Your task to perform on an android device: Do I have any events tomorrow? Image 0: 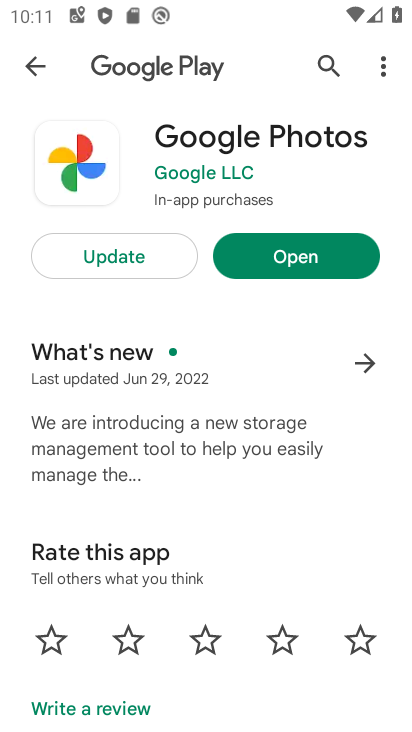
Step 0: press home button
Your task to perform on an android device: Do I have any events tomorrow? Image 1: 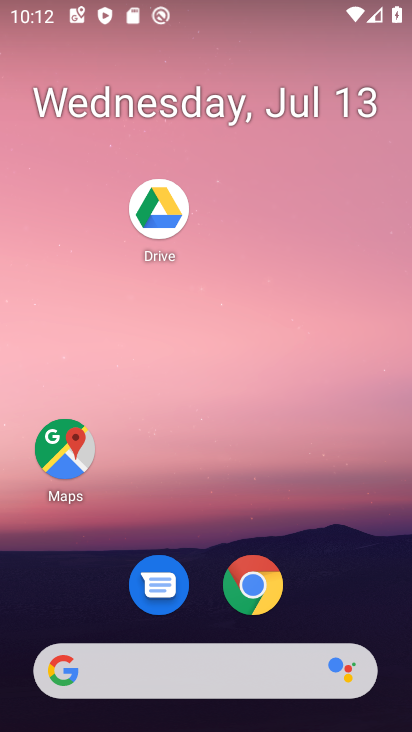
Step 1: click (204, 674)
Your task to perform on an android device: Do I have any events tomorrow? Image 2: 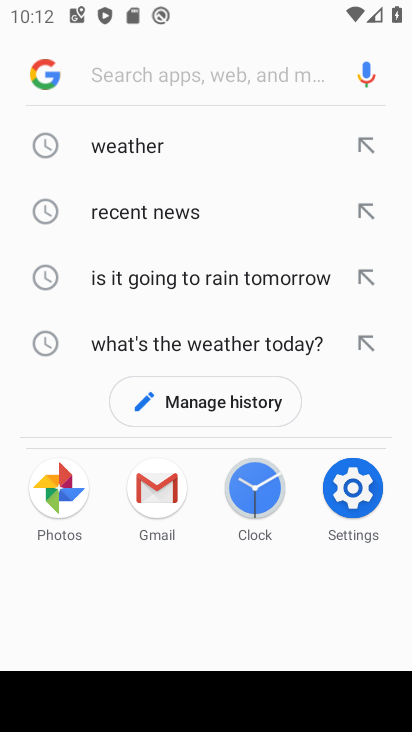
Step 2: press home button
Your task to perform on an android device: Do I have any events tomorrow? Image 3: 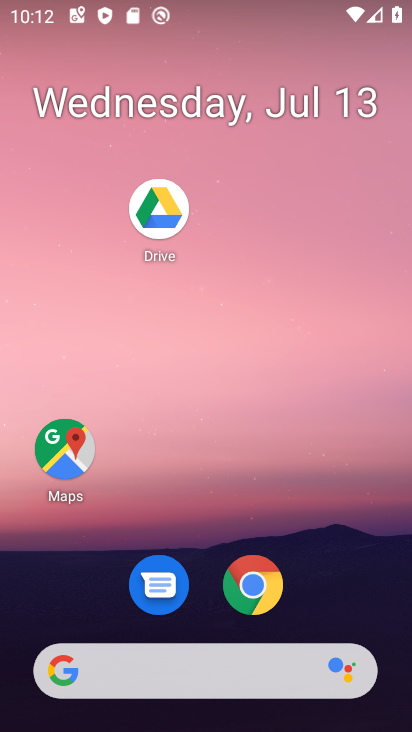
Step 3: drag from (153, 671) to (313, 2)
Your task to perform on an android device: Do I have any events tomorrow? Image 4: 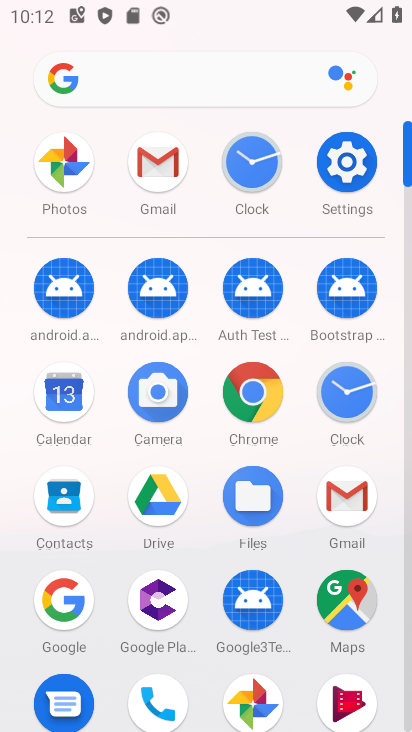
Step 4: click (59, 403)
Your task to perform on an android device: Do I have any events tomorrow? Image 5: 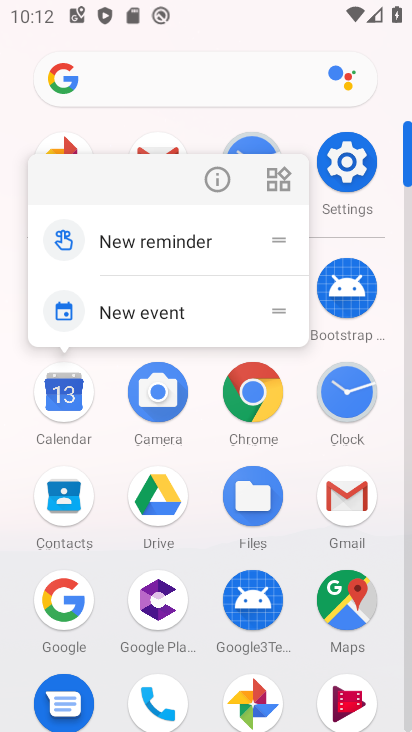
Step 5: click (68, 396)
Your task to perform on an android device: Do I have any events tomorrow? Image 6: 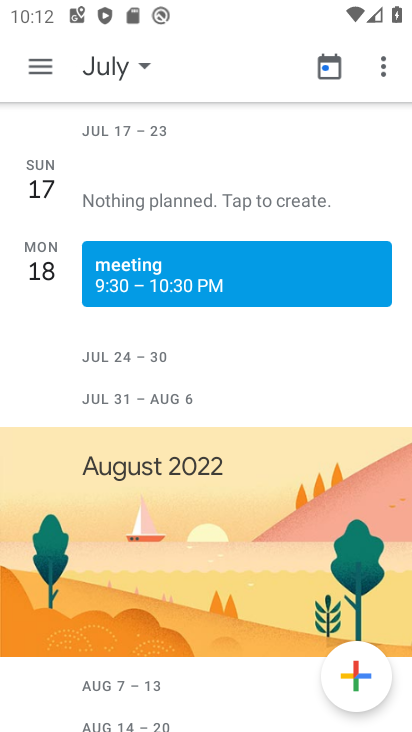
Step 6: click (118, 72)
Your task to perform on an android device: Do I have any events tomorrow? Image 7: 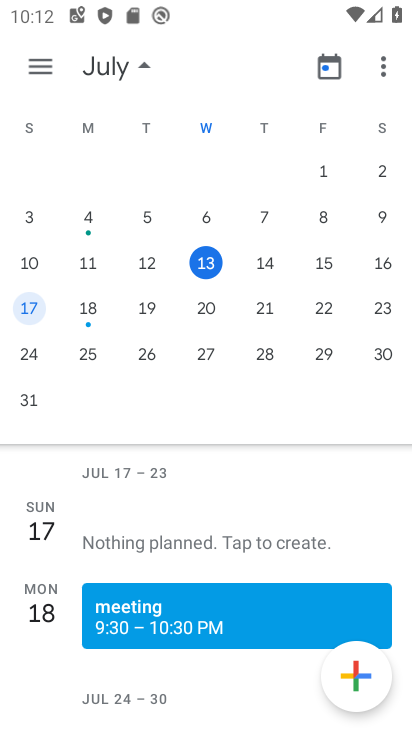
Step 7: click (266, 269)
Your task to perform on an android device: Do I have any events tomorrow? Image 8: 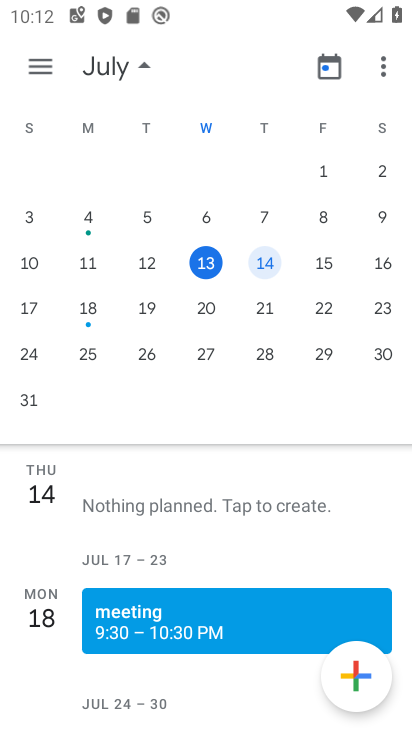
Step 8: click (40, 63)
Your task to perform on an android device: Do I have any events tomorrow? Image 9: 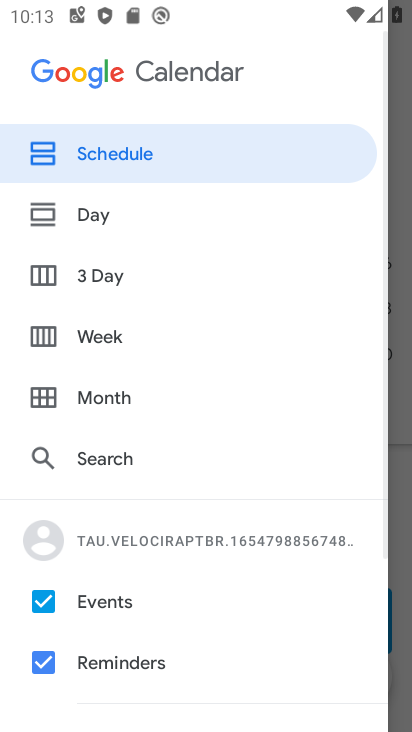
Step 9: click (103, 215)
Your task to perform on an android device: Do I have any events tomorrow? Image 10: 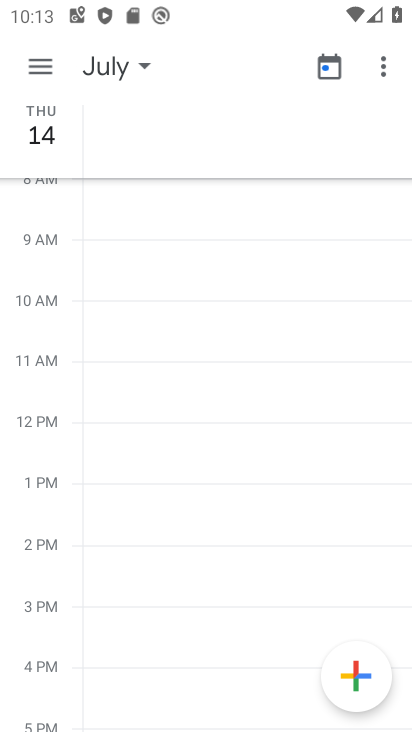
Step 10: click (42, 67)
Your task to perform on an android device: Do I have any events tomorrow? Image 11: 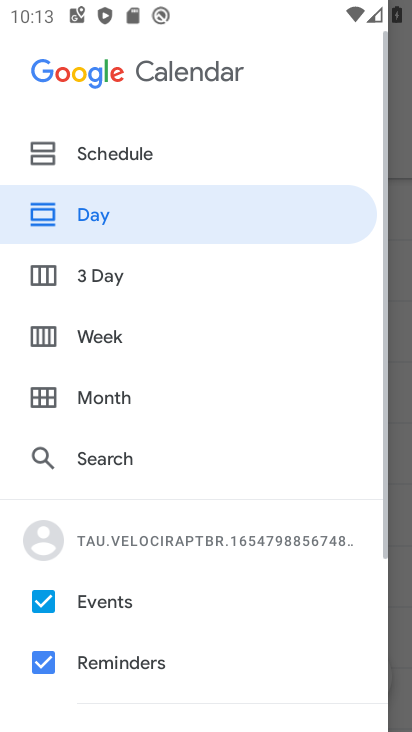
Step 11: click (121, 153)
Your task to perform on an android device: Do I have any events tomorrow? Image 12: 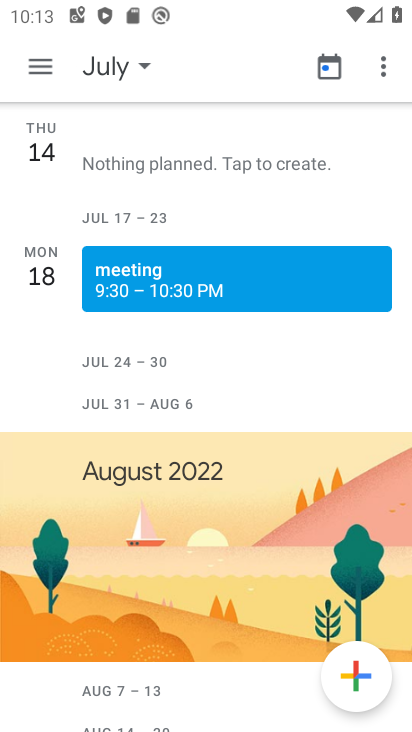
Step 12: task complete